Your task to perform on an android device: Open calendar and show me the second week of next month Image 0: 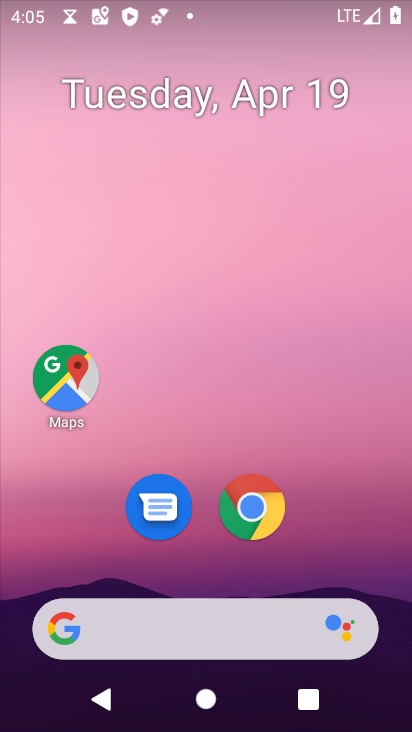
Step 0: drag from (370, 534) to (344, 0)
Your task to perform on an android device: Open calendar and show me the second week of next month Image 1: 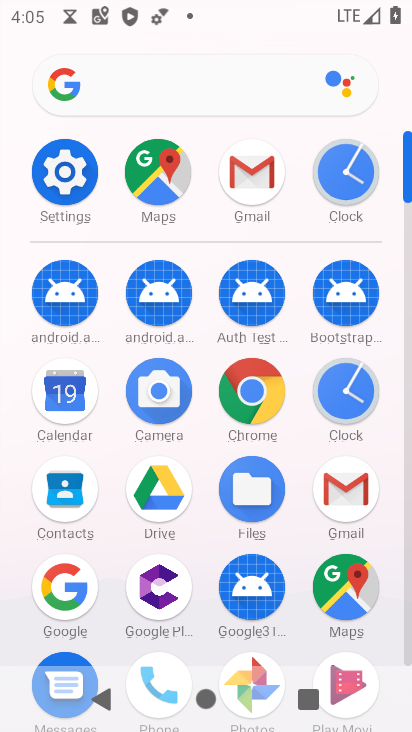
Step 1: click (61, 413)
Your task to perform on an android device: Open calendar and show me the second week of next month Image 2: 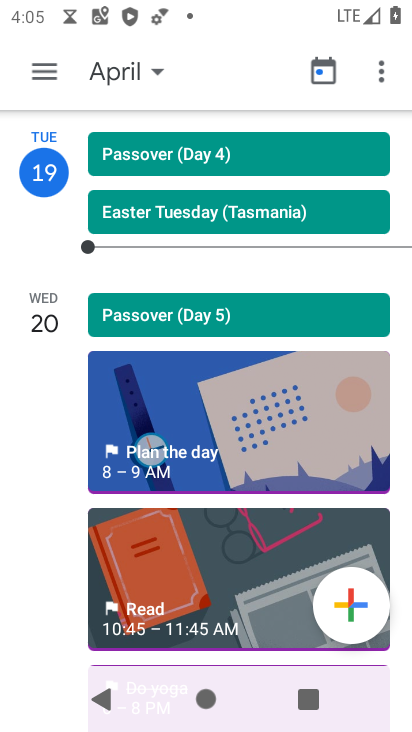
Step 2: click (143, 67)
Your task to perform on an android device: Open calendar and show me the second week of next month Image 3: 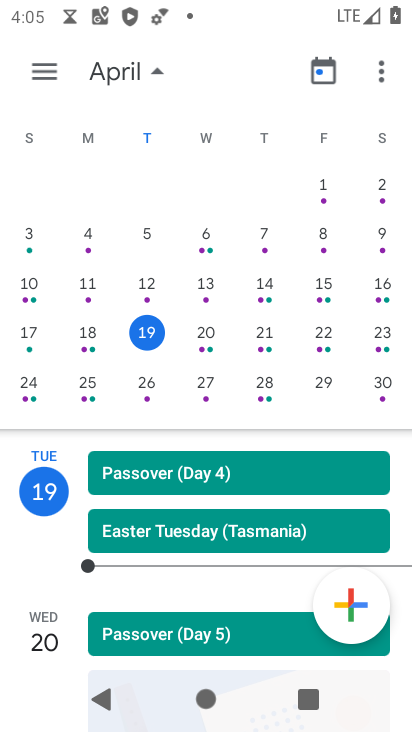
Step 3: drag from (322, 293) to (2, 290)
Your task to perform on an android device: Open calendar and show me the second week of next month Image 4: 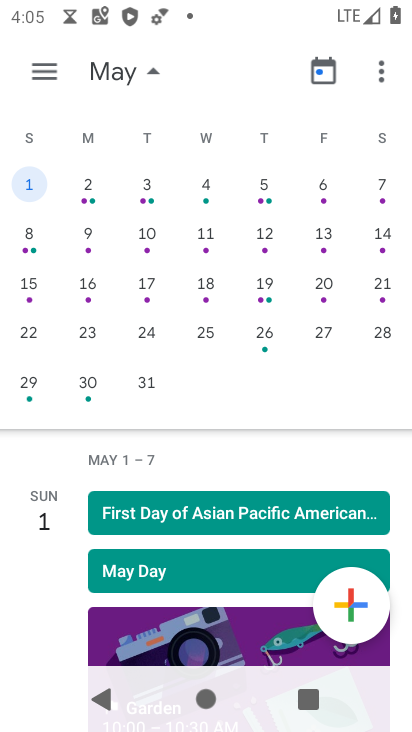
Step 4: click (44, 246)
Your task to perform on an android device: Open calendar and show me the second week of next month Image 5: 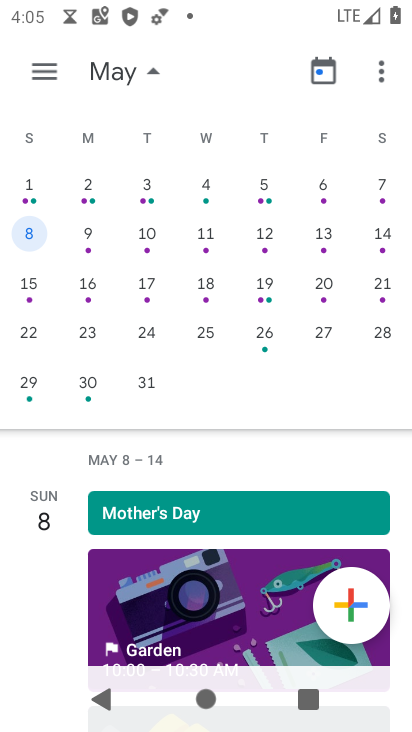
Step 5: task complete